Your task to perform on an android device: turn on translation in the chrome app Image 0: 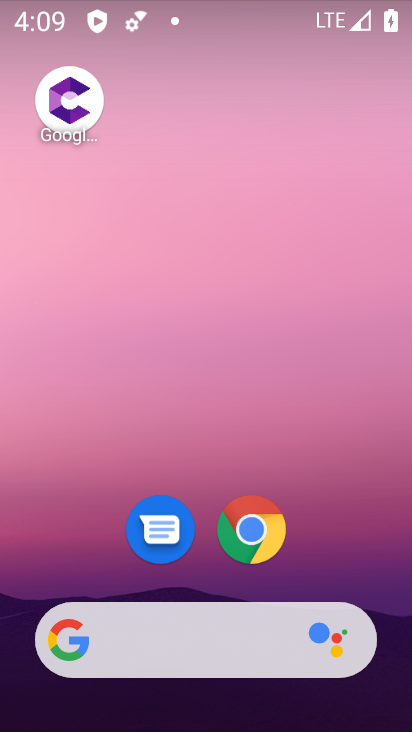
Step 0: click (271, 526)
Your task to perform on an android device: turn on translation in the chrome app Image 1: 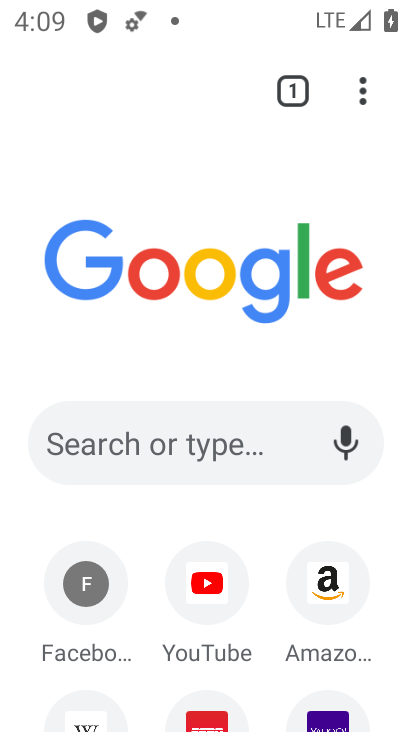
Step 1: click (362, 86)
Your task to perform on an android device: turn on translation in the chrome app Image 2: 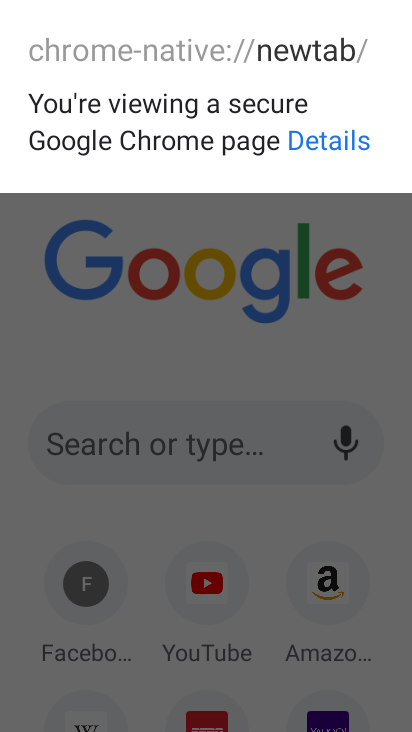
Step 2: click (281, 333)
Your task to perform on an android device: turn on translation in the chrome app Image 3: 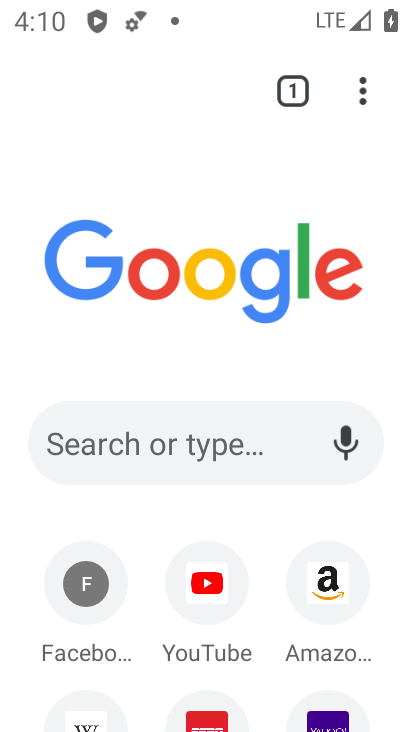
Step 3: click (366, 89)
Your task to perform on an android device: turn on translation in the chrome app Image 4: 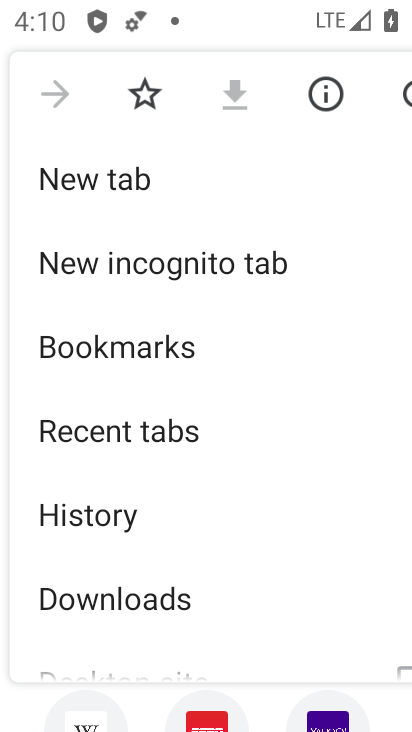
Step 4: drag from (204, 523) to (213, 303)
Your task to perform on an android device: turn on translation in the chrome app Image 5: 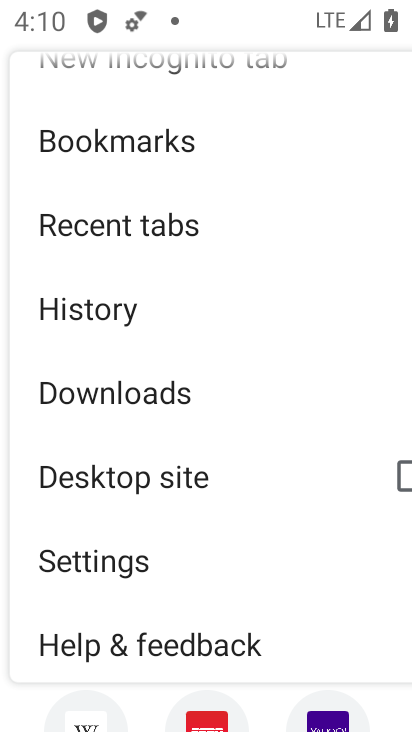
Step 5: click (155, 556)
Your task to perform on an android device: turn on translation in the chrome app Image 6: 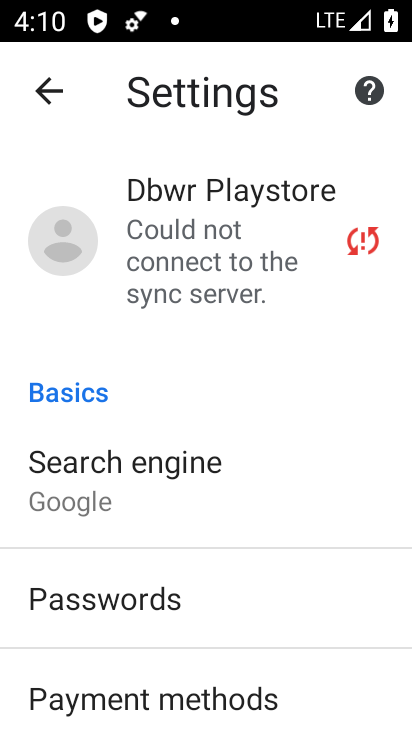
Step 6: drag from (161, 651) to (222, 202)
Your task to perform on an android device: turn on translation in the chrome app Image 7: 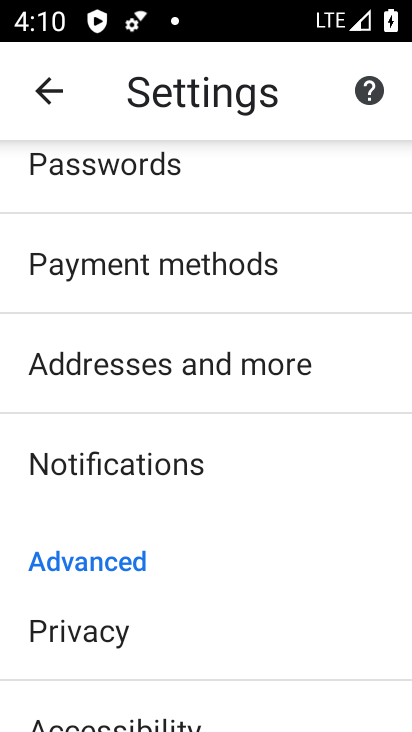
Step 7: drag from (224, 590) to (316, 203)
Your task to perform on an android device: turn on translation in the chrome app Image 8: 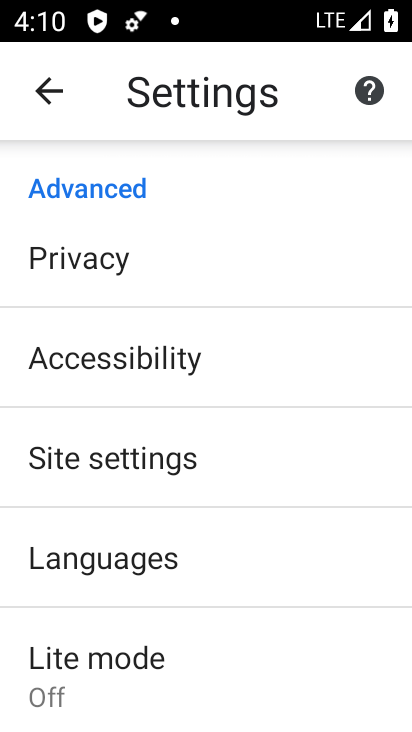
Step 8: click (121, 551)
Your task to perform on an android device: turn on translation in the chrome app Image 9: 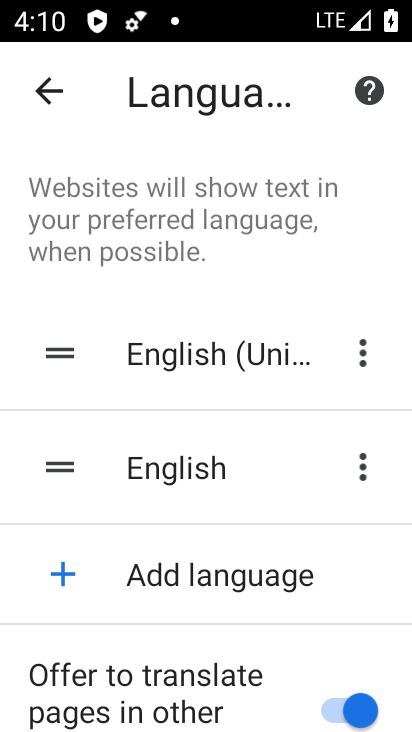
Step 9: task complete